Your task to perform on an android device: delete browsing data in the chrome app Image 0: 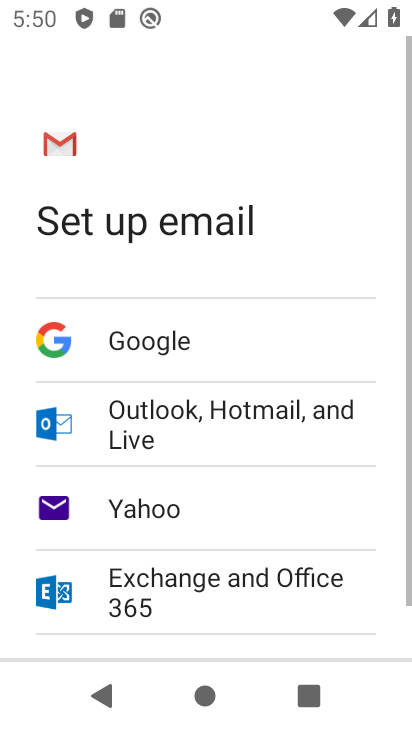
Step 0: press home button
Your task to perform on an android device: delete browsing data in the chrome app Image 1: 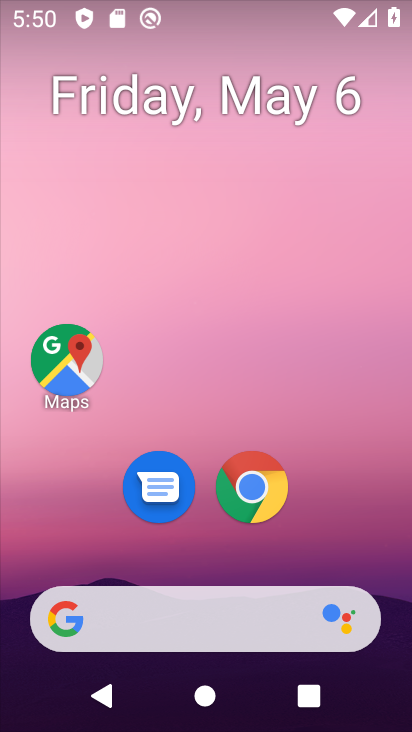
Step 1: click (258, 501)
Your task to perform on an android device: delete browsing data in the chrome app Image 2: 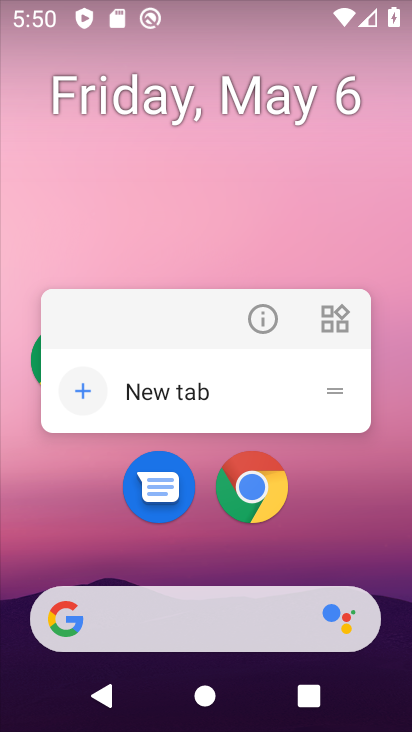
Step 2: click (260, 483)
Your task to perform on an android device: delete browsing data in the chrome app Image 3: 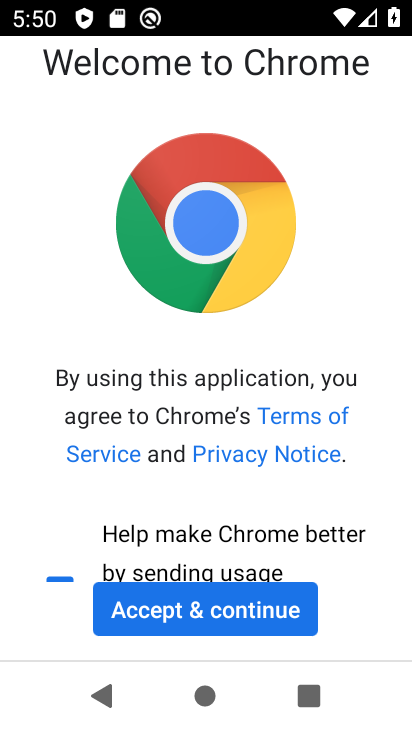
Step 3: click (287, 619)
Your task to perform on an android device: delete browsing data in the chrome app Image 4: 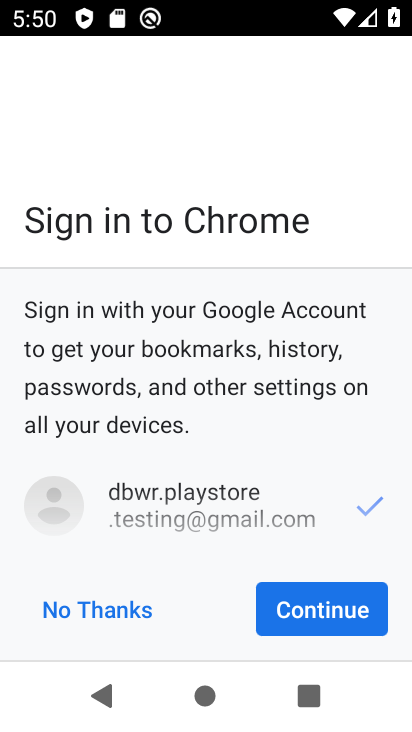
Step 4: click (319, 602)
Your task to perform on an android device: delete browsing data in the chrome app Image 5: 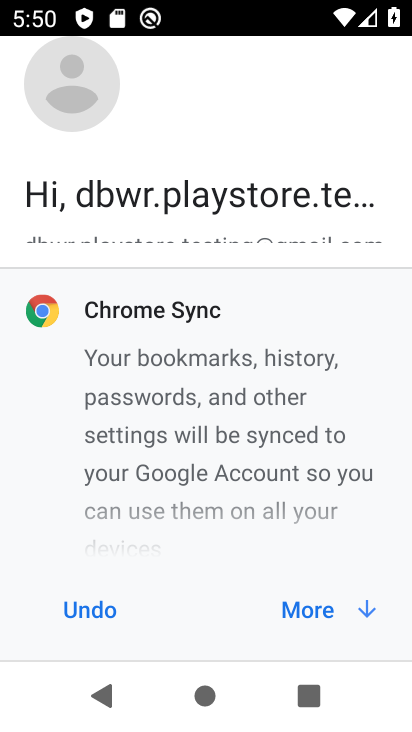
Step 5: click (324, 610)
Your task to perform on an android device: delete browsing data in the chrome app Image 6: 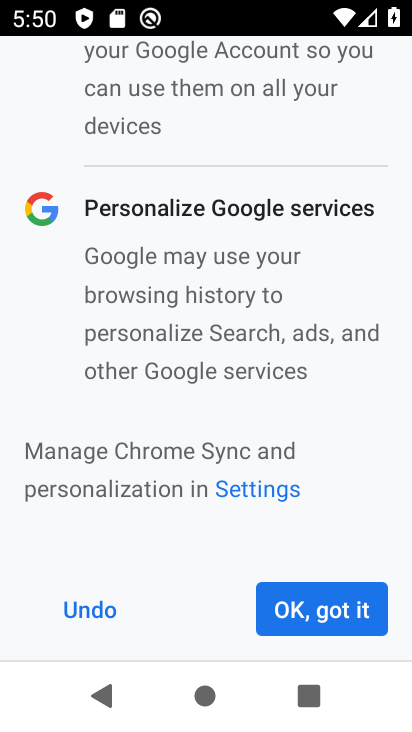
Step 6: click (324, 610)
Your task to perform on an android device: delete browsing data in the chrome app Image 7: 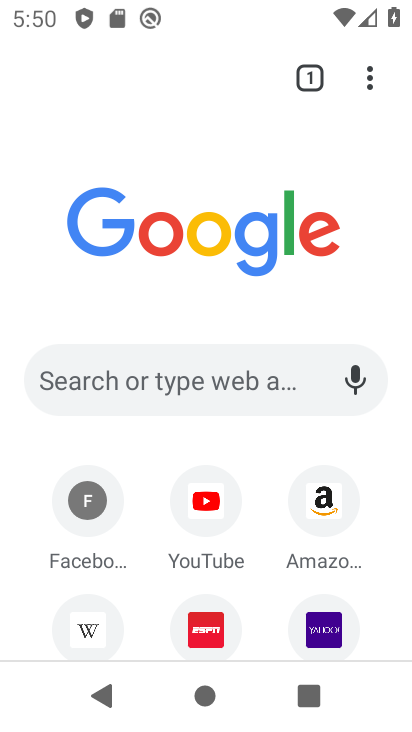
Step 7: click (368, 71)
Your task to perform on an android device: delete browsing data in the chrome app Image 8: 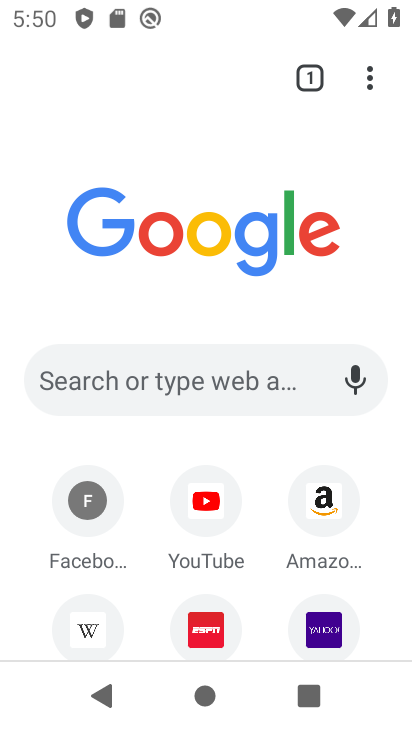
Step 8: drag from (366, 77) to (98, 550)
Your task to perform on an android device: delete browsing data in the chrome app Image 9: 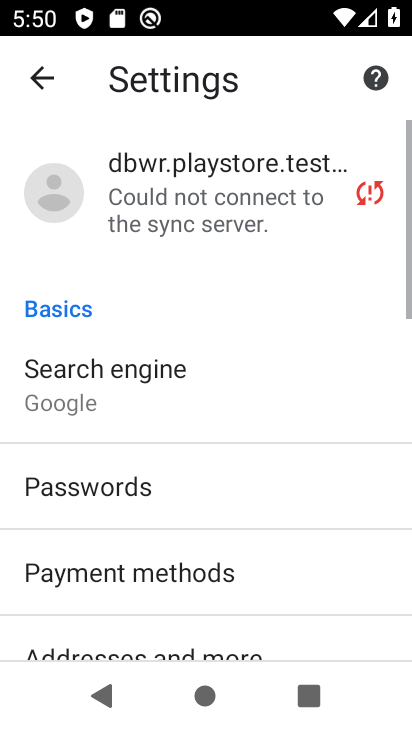
Step 9: drag from (285, 585) to (289, 157)
Your task to perform on an android device: delete browsing data in the chrome app Image 10: 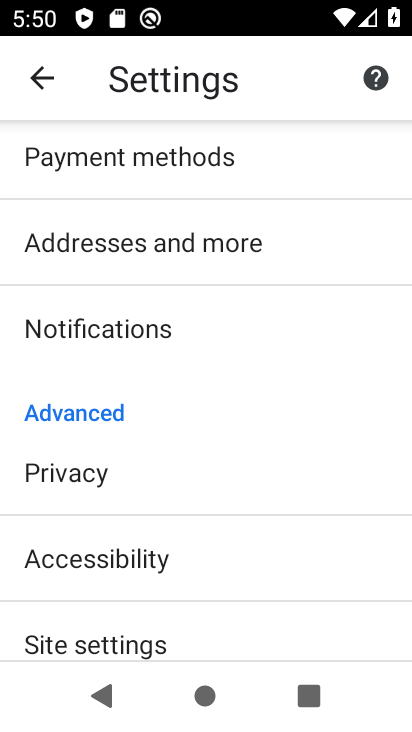
Step 10: click (71, 469)
Your task to perform on an android device: delete browsing data in the chrome app Image 11: 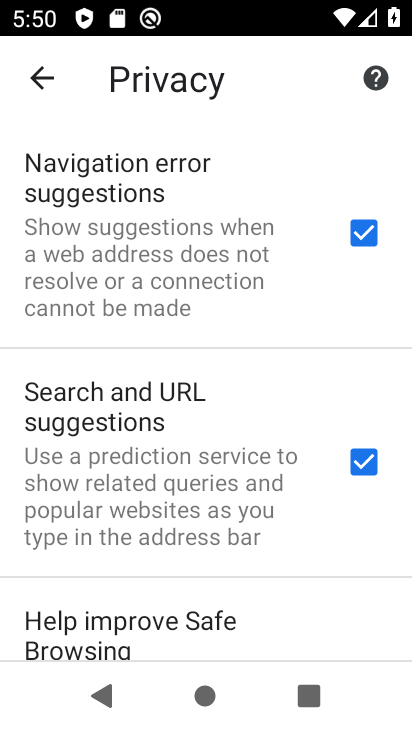
Step 11: drag from (278, 586) to (264, 75)
Your task to perform on an android device: delete browsing data in the chrome app Image 12: 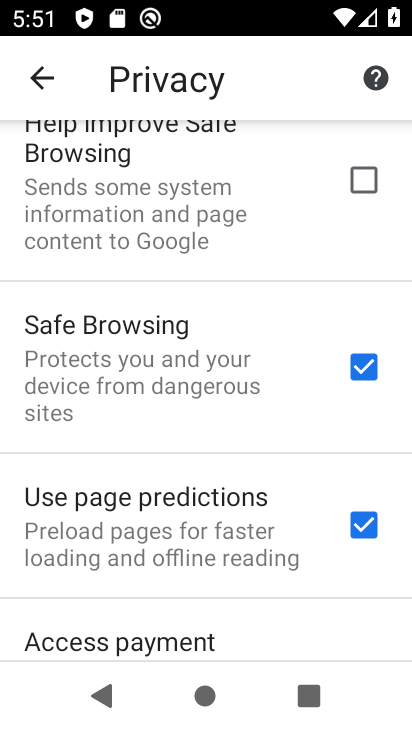
Step 12: drag from (287, 636) to (249, 100)
Your task to perform on an android device: delete browsing data in the chrome app Image 13: 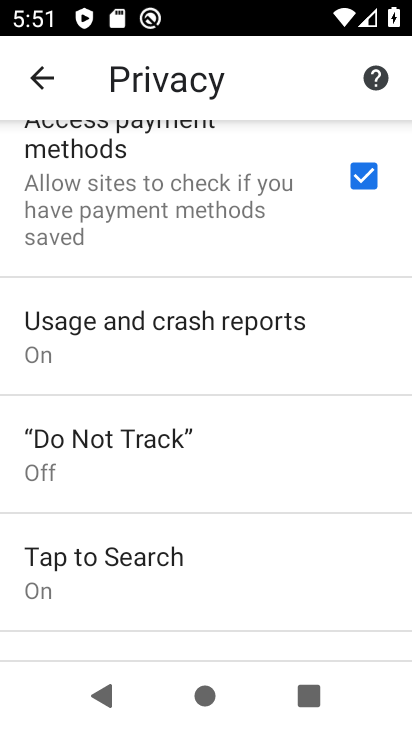
Step 13: drag from (238, 608) to (258, 138)
Your task to perform on an android device: delete browsing data in the chrome app Image 14: 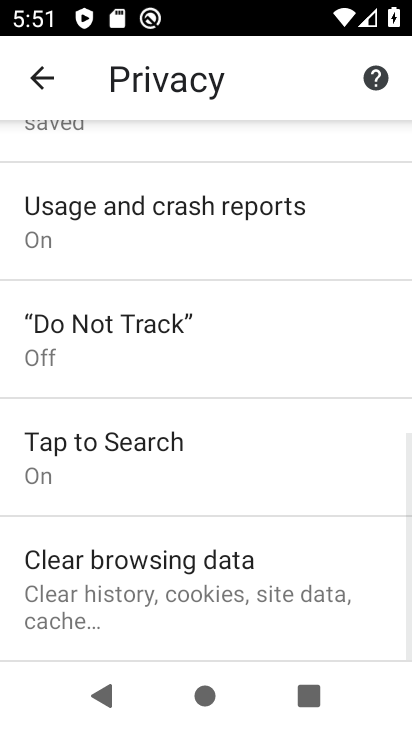
Step 14: click (177, 576)
Your task to perform on an android device: delete browsing data in the chrome app Image 15: 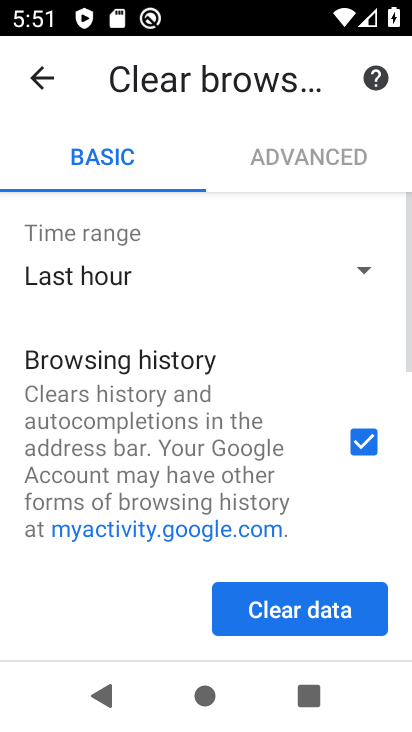
Step 15: click (279, 608)
Your task to perform on an android device: delete browsing data in the chrome app Image 16: 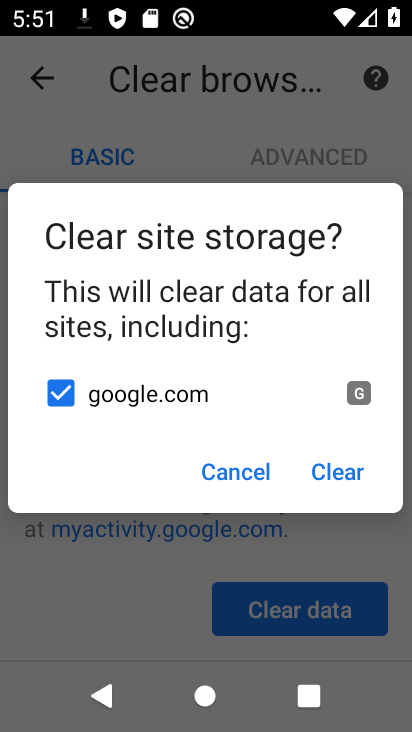
Step 16: click (347, 475)
Your task to perform on an android device: delete browsing data in the chrome app Image 17: 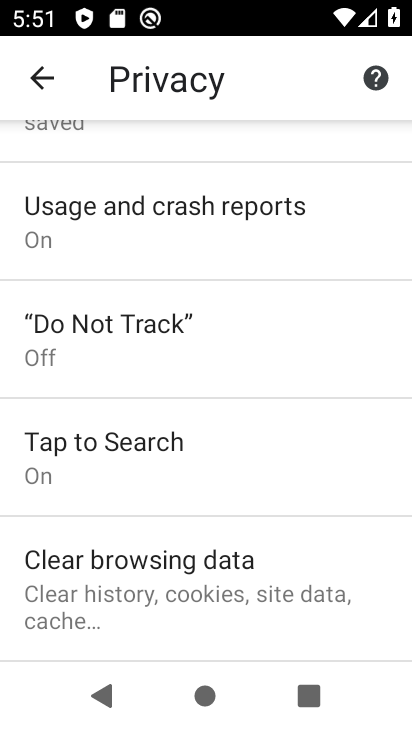
Step 17: task complete